Your task to perform on an android device: Do I have any events tomorrow? Image 0: 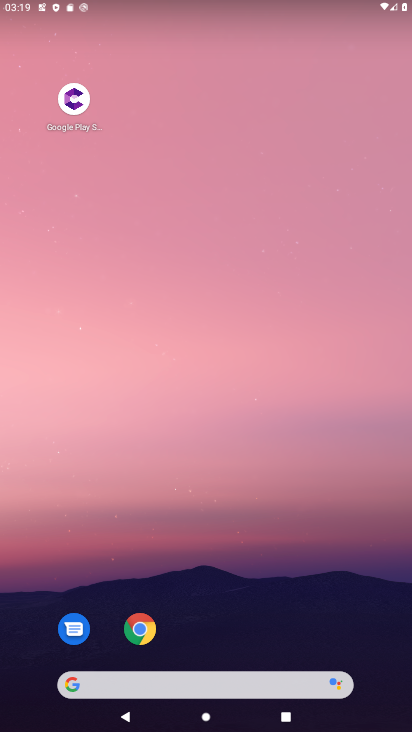
Step 0: press home button
Your task to perform on an android device: Do I have any events tomorrow? Image 1: 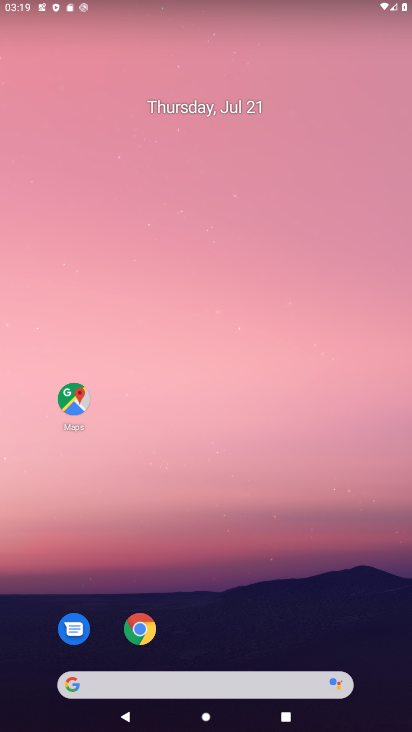
Step 1: drag from (256, 528) to (216, 188)
Your task to perform on an android device: Do I have any events tomorrow? Image 2: 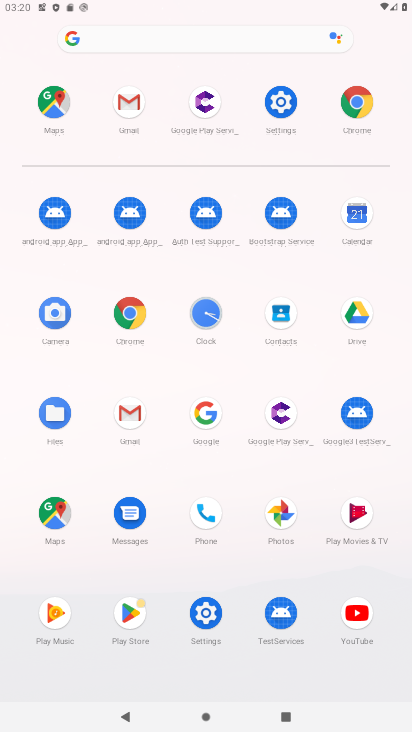
Step 2: click (368, 239)
Your task to perform on an android device: Do I have any events tomorrow? Image 3: 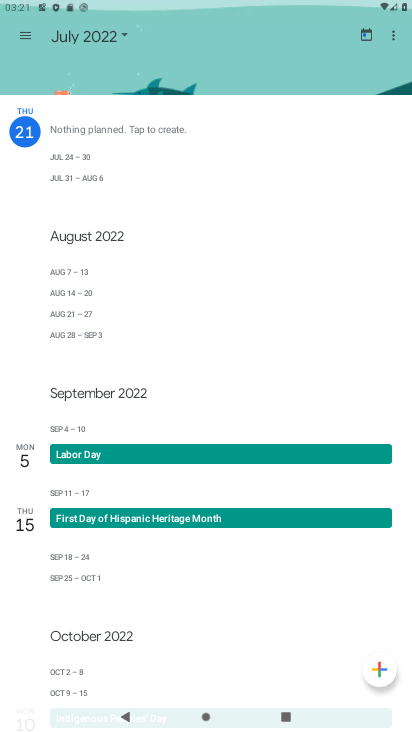
Step 3: click (74, 30)
Your task to perform on an android device: Do I have any events tomorrow? Image 4: 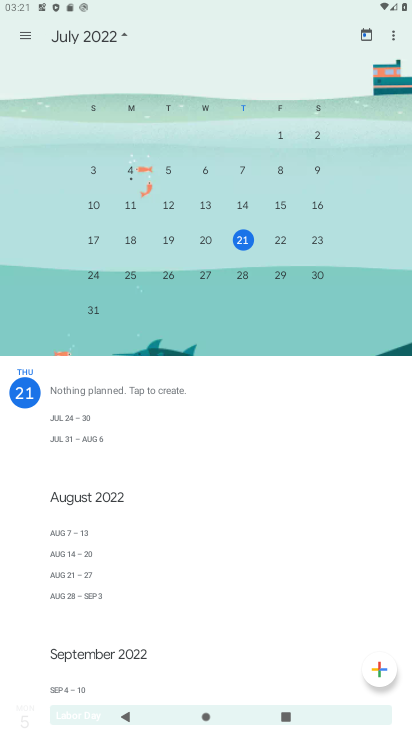
Step 4: click (285, 245)
Your task to perform on an android device: Do I have any events tomorrow? Image 5: 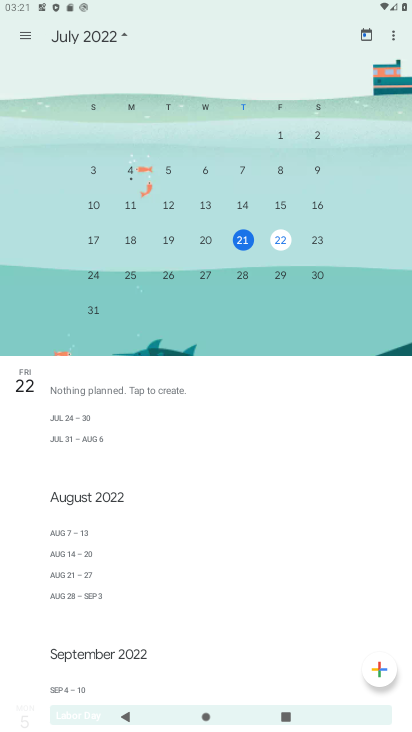
Step 5: task complete